Your task to perform on an android device: check google app version Image 0: 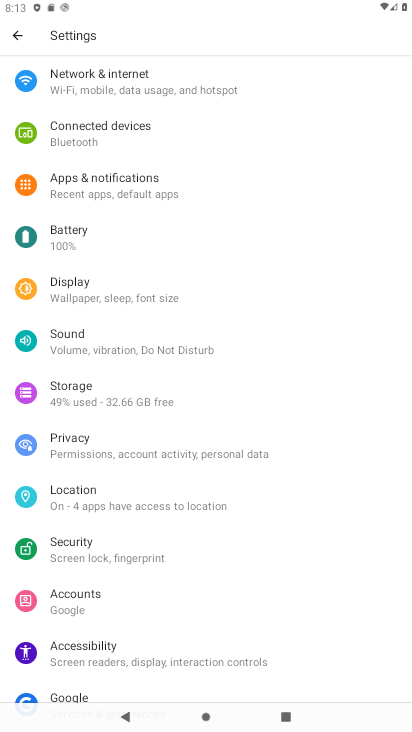
Step 0: press home button
Your task to perform on an android device: check google app version Image 1: 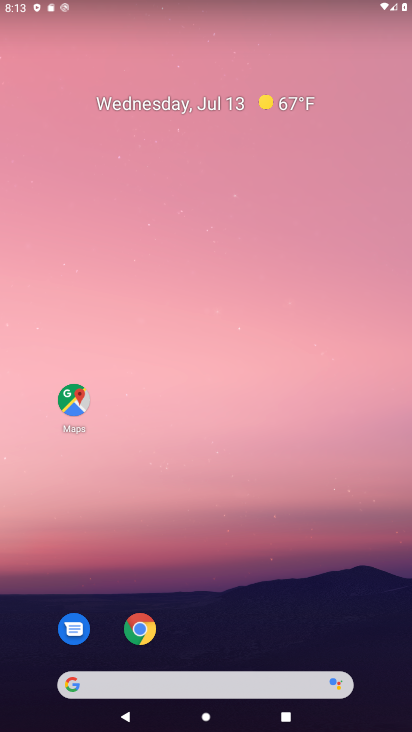
Step 1: click (69, 702)
Your task to perform on an android device: check google app version Image 2: 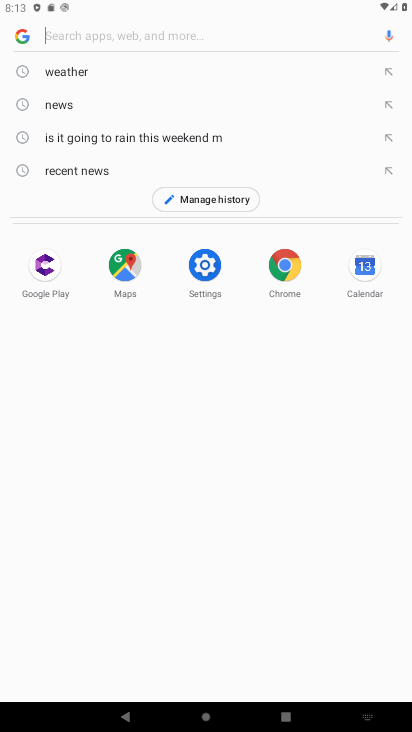
Step 2: click (17, 31)
Your task to perform on an android device: check google app version Image 3: 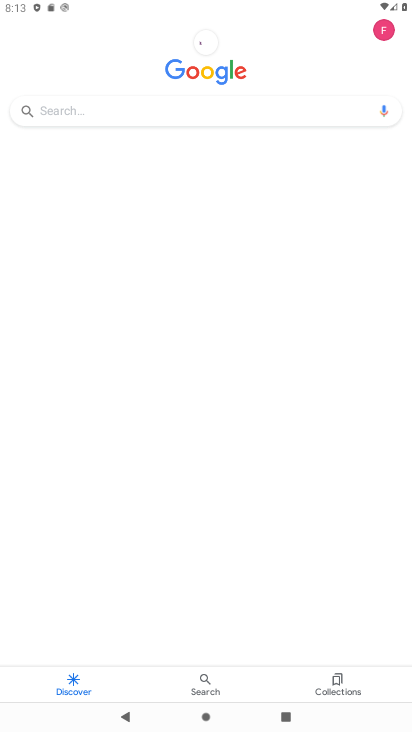
Step 3: click (391, 27)
Your task to perform on an android device: check google app version Image 4: 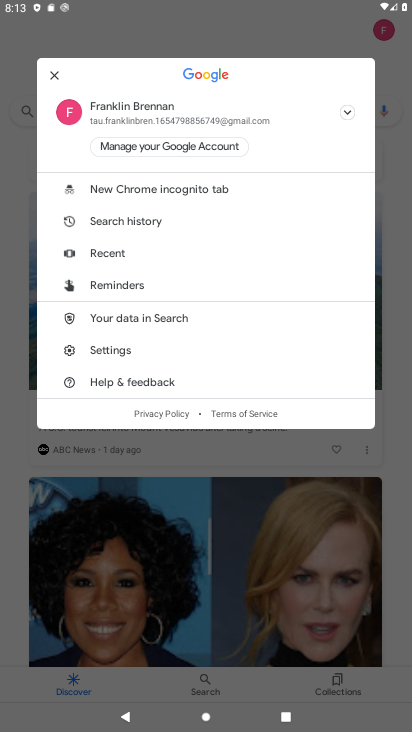
Step 4: click (112, 348)
Your task to perform on an android device: check google app version Image 5: 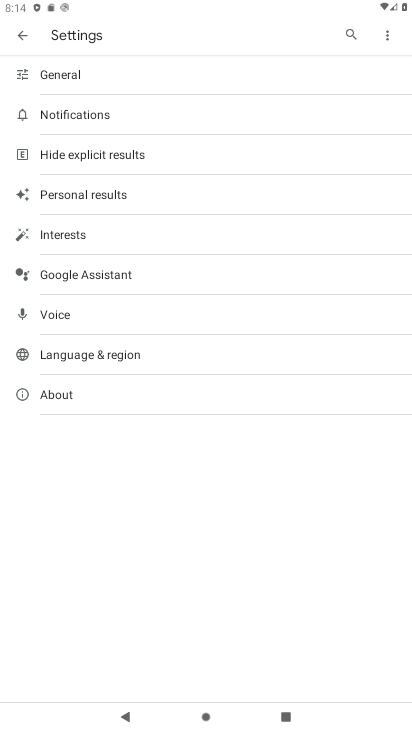
Step 5: click (80, 400)
Your task to perform on an android device: check google app version Image 6: 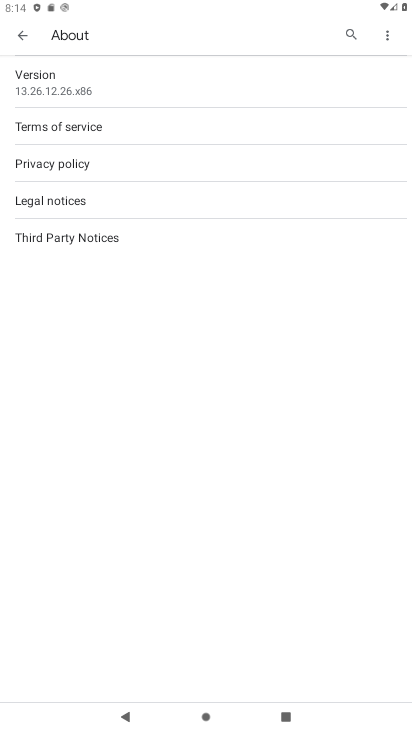
Step 6: task complete